Your task to perform on an android device: check out phone information Image 0: 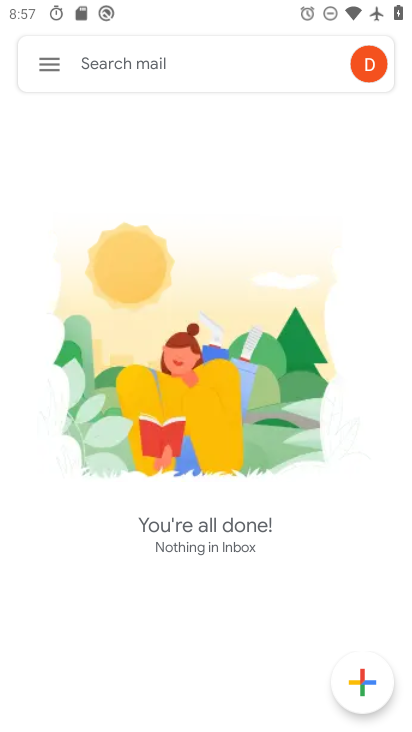
Step 0: press home button
Your task to perform on an android device: check out phone information Image 1: 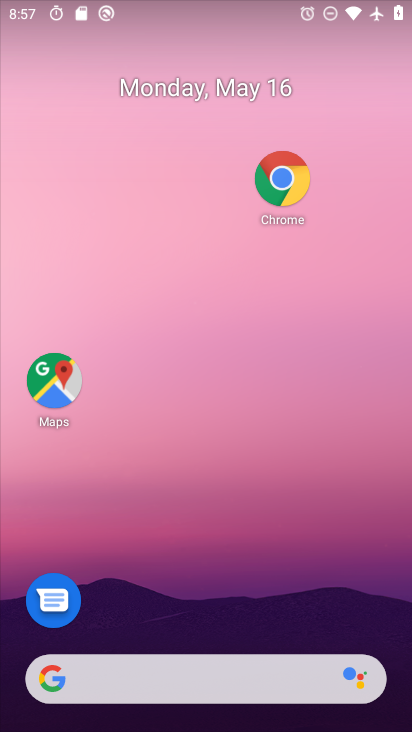
Step 1: drag from (187, 682) to (234, 100)
Your task to perform on an android device: check out phone information Image 2: 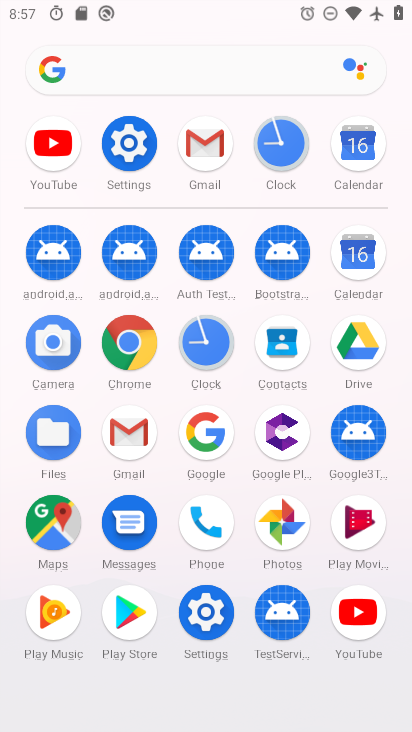
Step 2: click (131, 146)
Your task to perform on an android device: check out phone information Image 3: 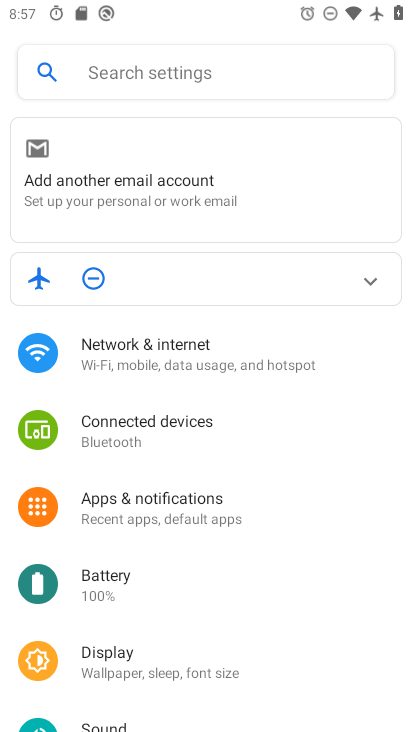
Step 3: drag from (239, 699) to (330, 25)
Your task to perform on an android device: check out phone information Image 4: 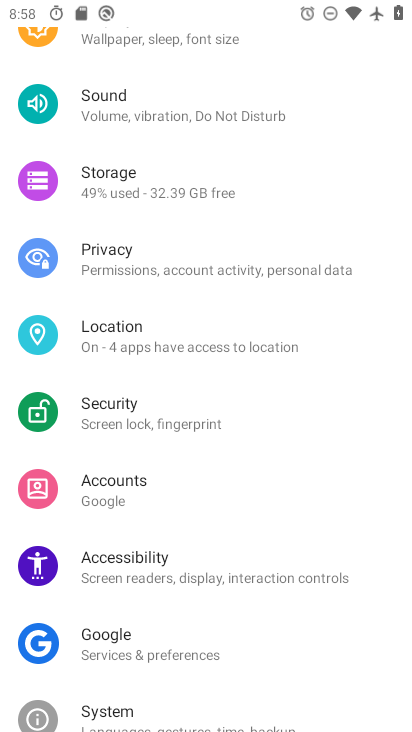
Step 4: drag from (249, 611) to (280, 127)
Your task to perform on an android device: check out phone information Image 5: 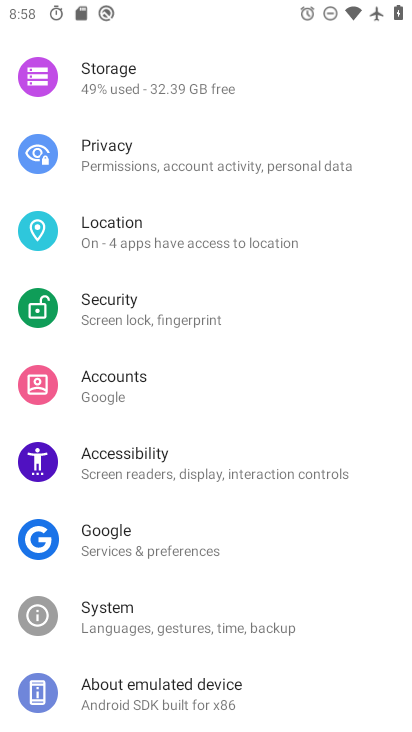
Step 5: click (175, 689)
Your task to perform on an android device: check out phone information Image 6: 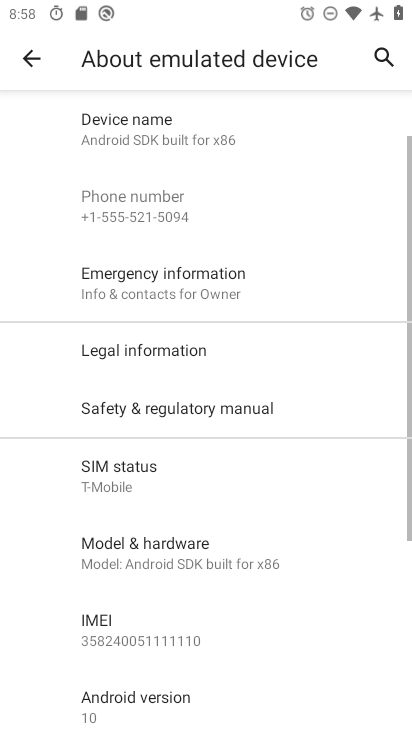
Step 6: task complete